Your task to perform on an android device: Open Youtube and go to the subscriptions tab Image 0: 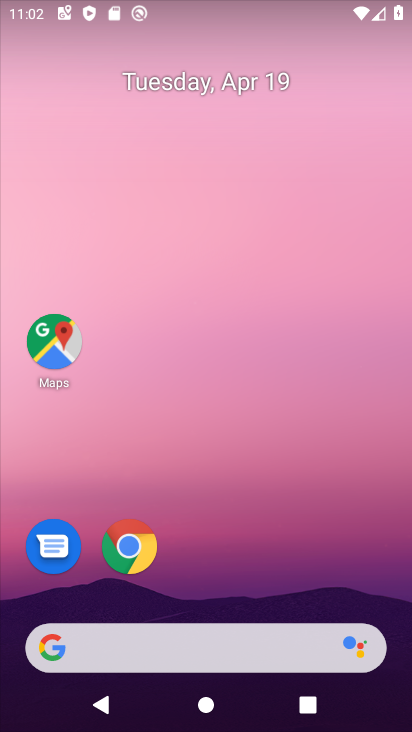
Step 0: drag from (320, 421) to (322, 114)
Your task to perform on an android device: Open Youtube and go to the subscriptions tab Image 1: 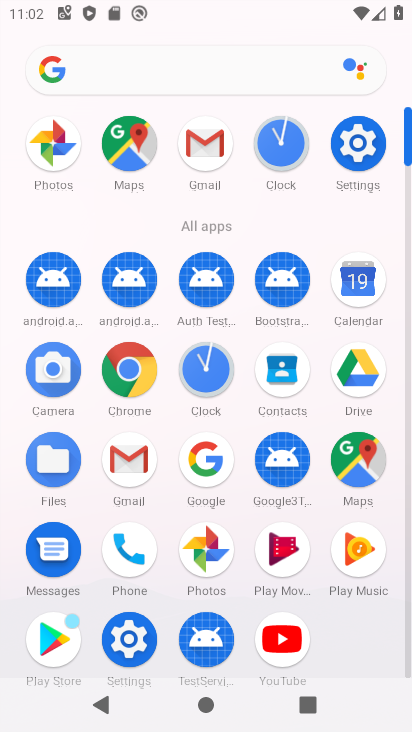
Step 1: click (269, 634)
Your task to perform on an android device: Open Youtube and go to the subscriptions tab Image 2: 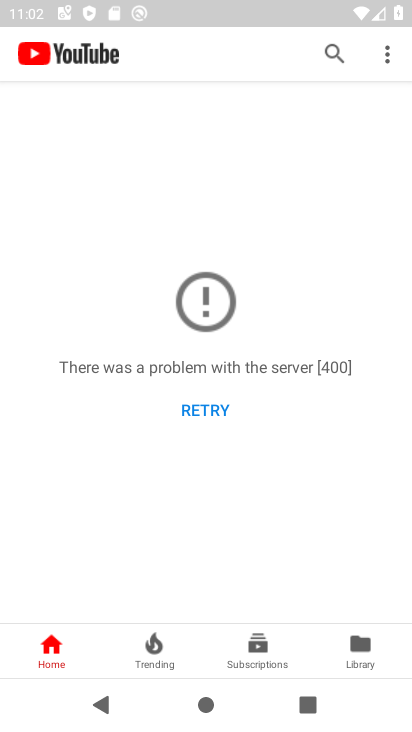
Step 2: click (253, 647)
Your task to perform on an android device: Open Youtube and go to the subscriptions tab Image 3: 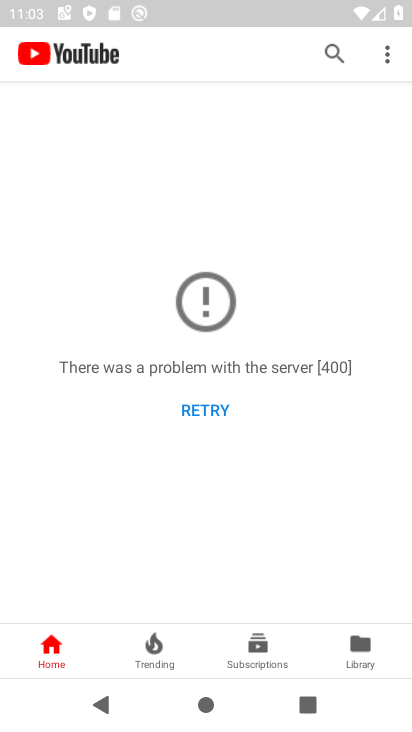
Step 3: click (258, 645)
Your task to perform on an android device: Open Youtube and go to the subscriptions tab Image 4: 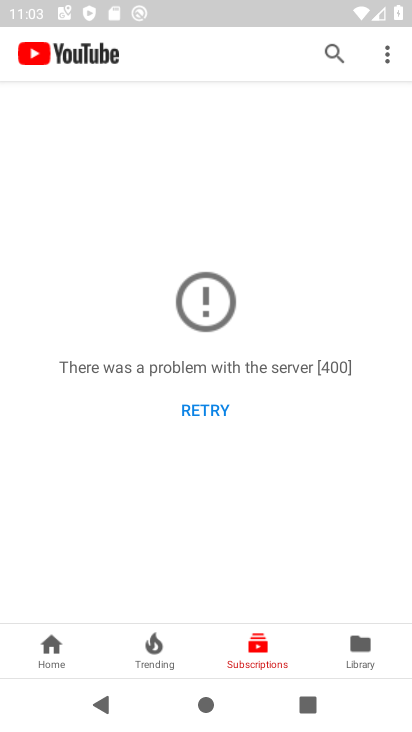
Step 4: task complete